Your task to perform on an android device: Play the last video I watched on Youtube Image 0: 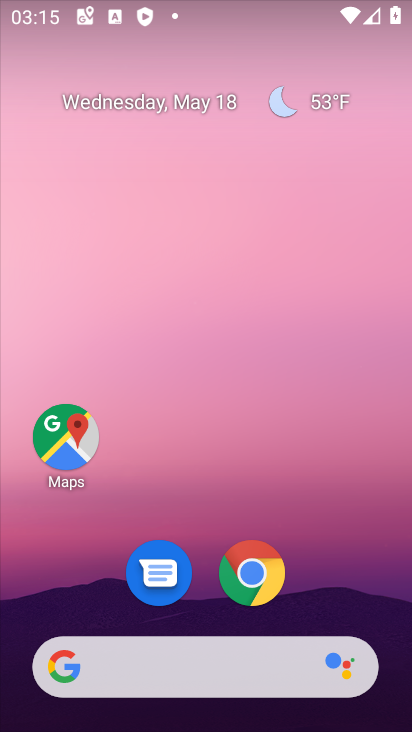
Step 0: drag from (195, 612) to (226, 197)
Your task to perform on an android device: Play the last video I watched on Youtube Image 1: 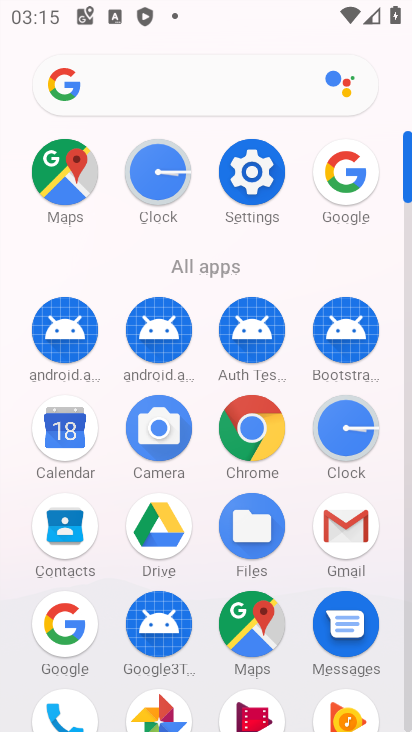
Step 1: drag from (210, 626) to (231, 288)
Your task to perform on an android device: Play the last video I watched on Youtube Image 2: 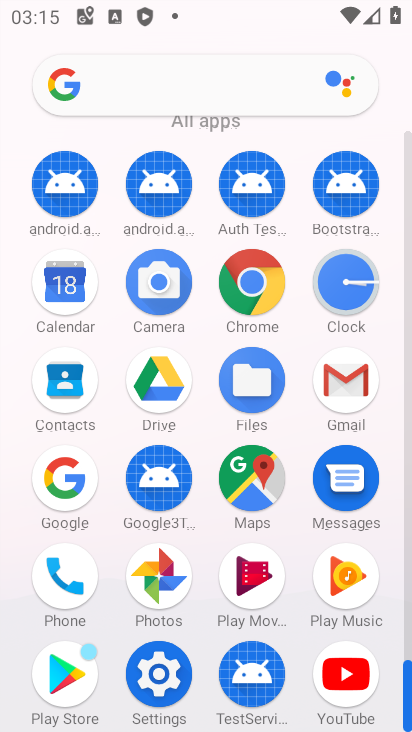
Step 2: click (332, 650)
Your task to perform on an android device: Play the last video I watched on Youtube Image 3: 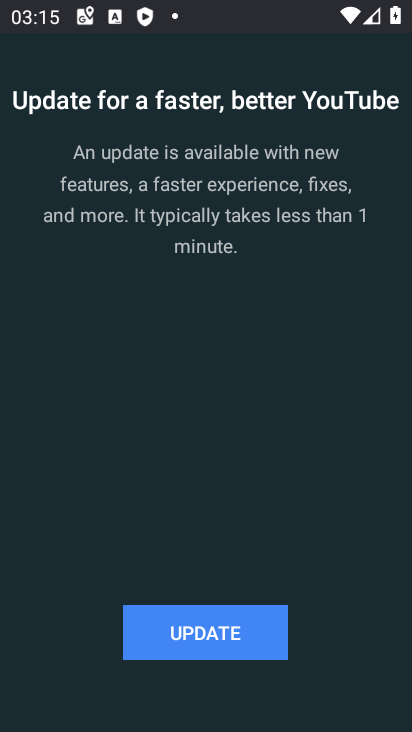
Step 3: click (183, 617)
Your task to perform on an android device: Play the last video I watched on Youtube Image 4: 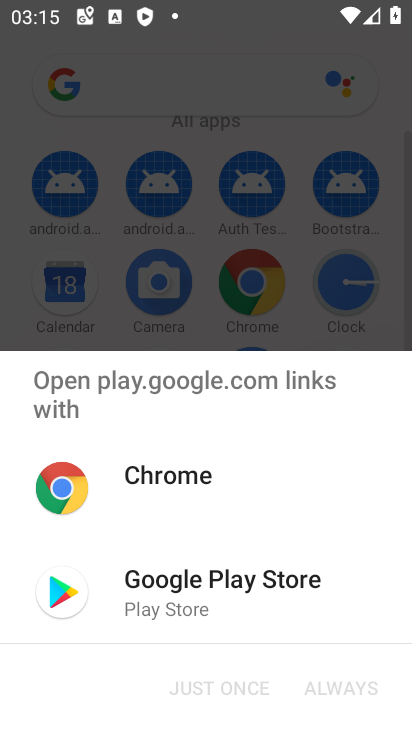
Step 4: click (185, 580)
Your task to perform on an android device: Play the last video I watched on Youtube Image 5: 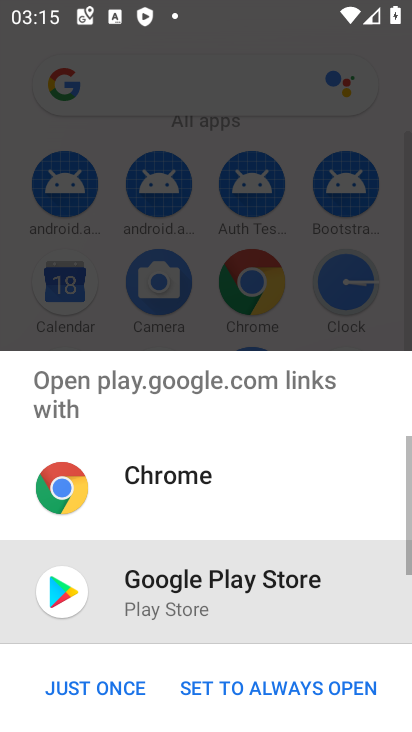
Step 5: click (95, 687)
Your task to perform on an android device: Play the last video I watched on Youtube Image 6: 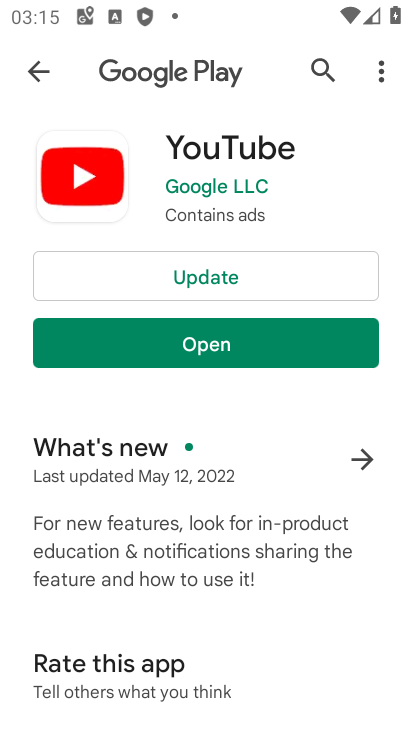
Step 6: click (171, 281)
Your task to perform on an android device: Play the last video I watched on Youtube Image 7: 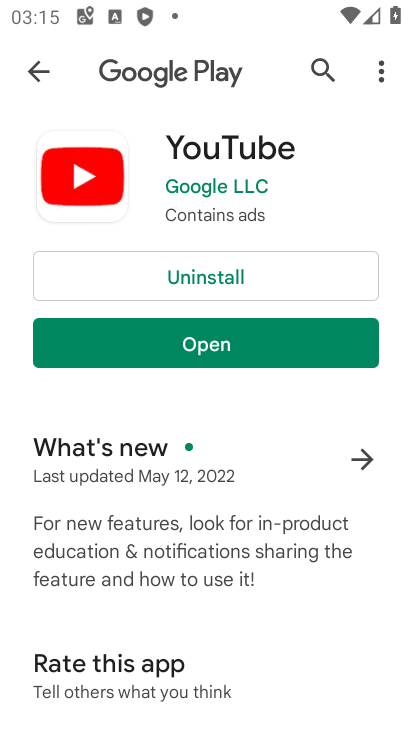
Step 7: click (204, 346)
Your task to perform on an android device: Play the last video I watched on Youtube Image 8: 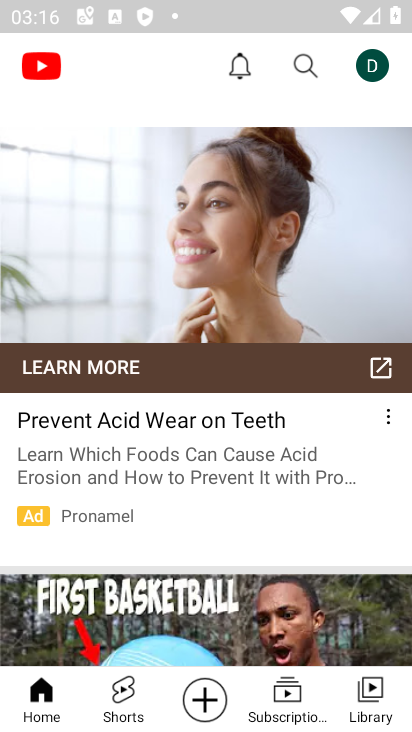
Step 8: click (363, 698)
Your task to perform on an android device: Play the last video I watched on Youtube Image 9: 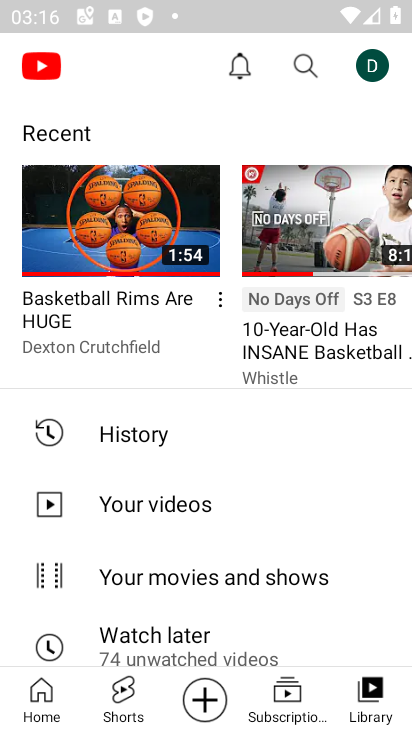
Step 9: click (151, 429)
Your task to perform on an android device: Play the last video I watched on Youtube Image 10: 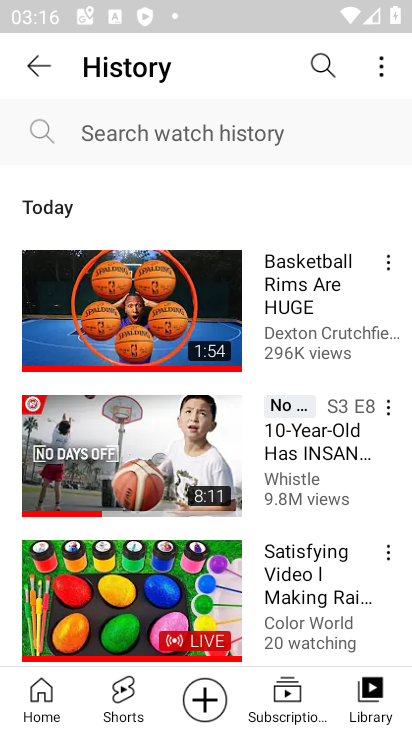
Step 10: task complete